Your task to perform on an android device: choose inbox layout in the gmail app Image 0: 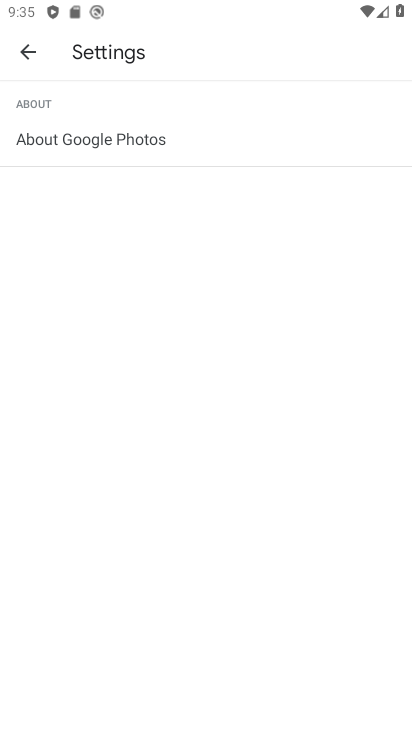
Step 0: press home button
Your task to perform on an android device: choose inbox layout in the gmail app Image 1: 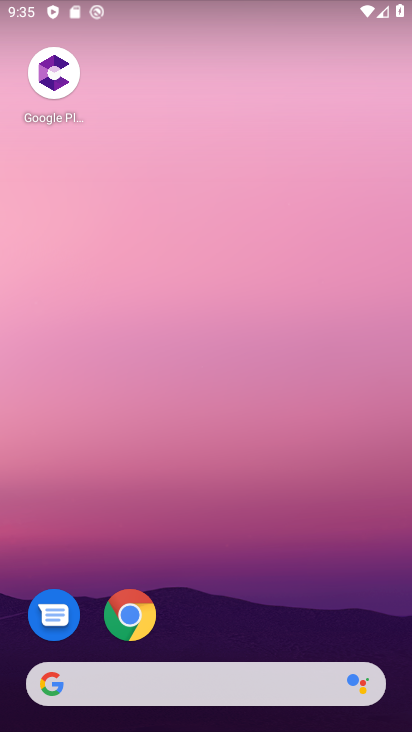
Step 1: drag from (215, 721) to (205, 41)
Your task to perform on an android device: choose inbox layout in the gmail app Image 2: 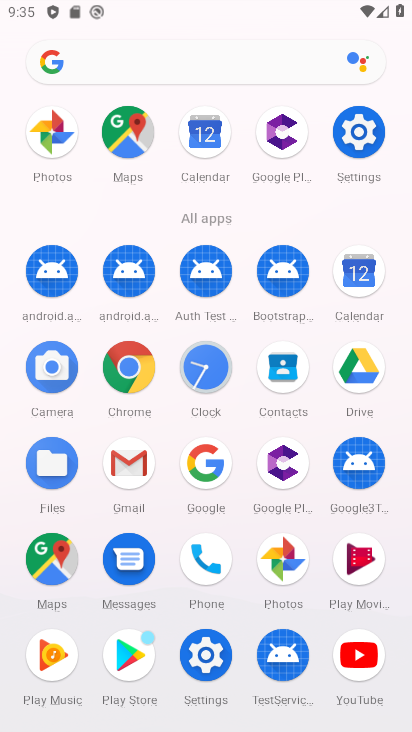
Step 2: click (122, 471)
Your task to perform on an android device: choose inbox layout in the gmail app Image 3: 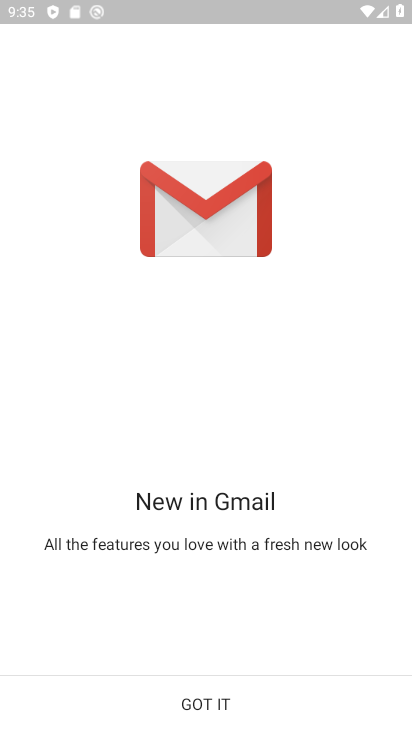
Step 3: click (206, 702)
Your task to perform on an android device: choose inbox layout in the gmail app Image 4: 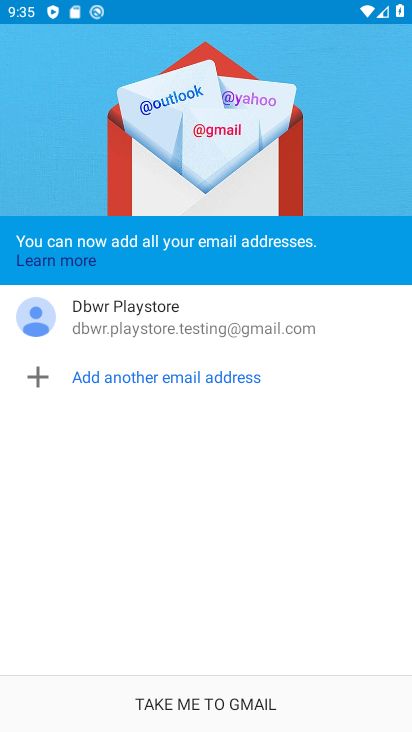
Step 4: click (229, 696)
Your task to perform on an android device: choose inbox layout in the gmail app Image 5: 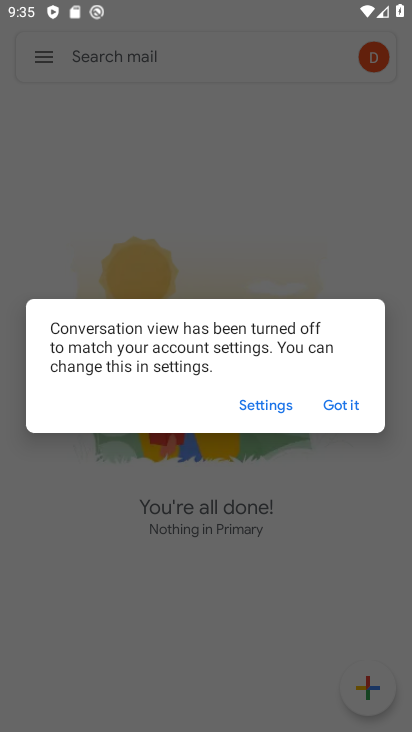
Step 5: click (337, 404)
Your task to perform on an android device: choose inbox layout in the gmail app Image 6: 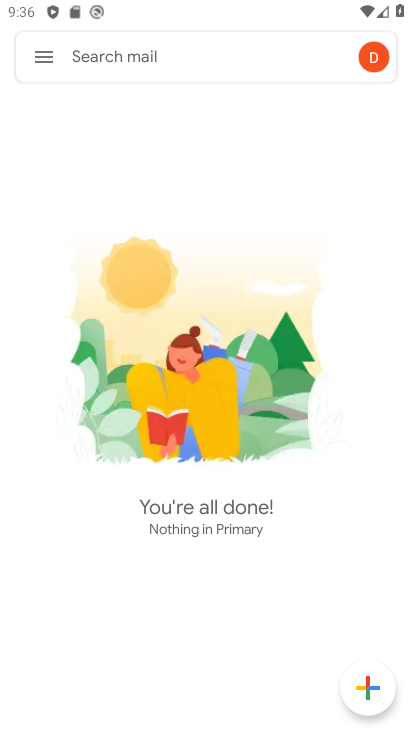
Step 6: click (39, 52)
Your task to perform on an android device: choose inbox layout in the gmail app Image 7: 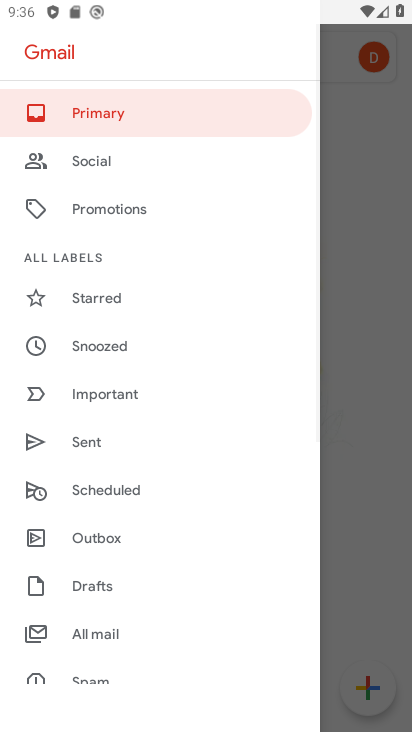
Step 7: drag from (133, 598) to (140, 242)
Your task to perform on an android device: choose inbox layout in the gmail app Image 8: 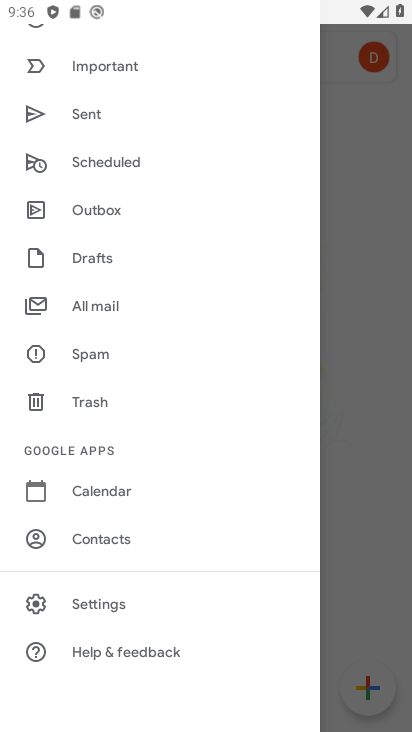
Step 8: click (95, 602)
Your task to perform on an android device: choose inbox layout in the gmail app Image 9: 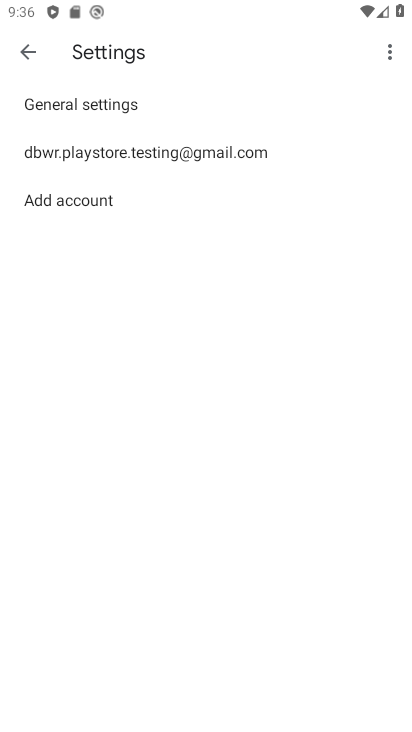
Step 9: click (144, 149)
Your task to perform on an android device: choose inbox layout in the gmail app Image 10: 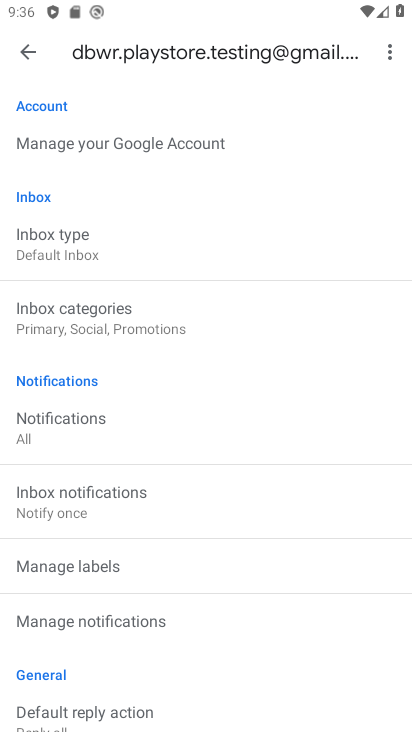
Step 10: click (65, 240)
Your task to perform on an android device: choose inbox layout in the gmail app Image 11: 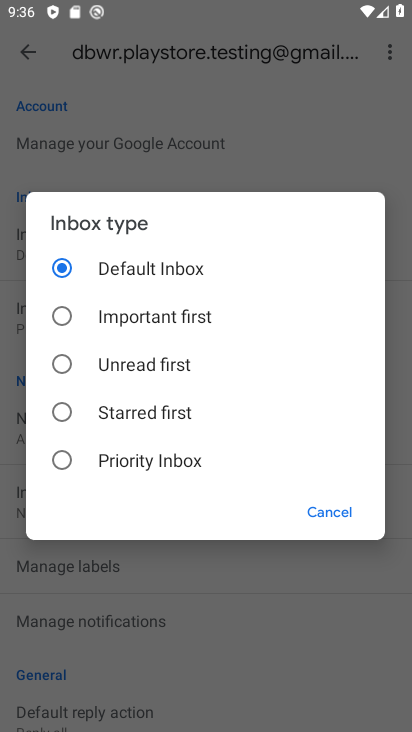
Step 11: click (65, 320)
Your task to perform on an android device: choose inbox layout in the gmail app Image 12: 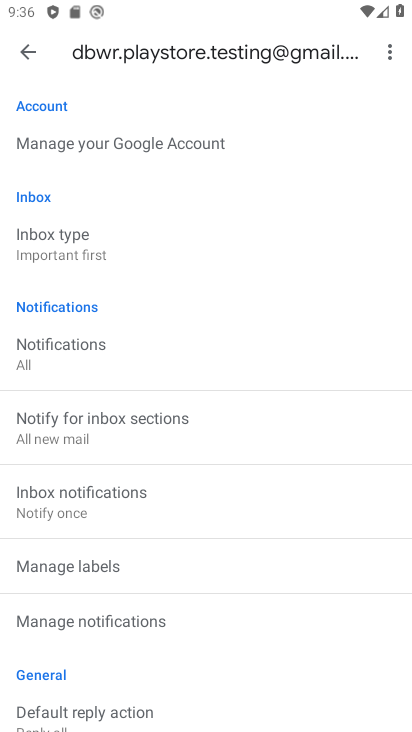
Step 12: task complete